Your task to perform on an android device: Open the Play Movies app and select the watchlist tab. Image 0: 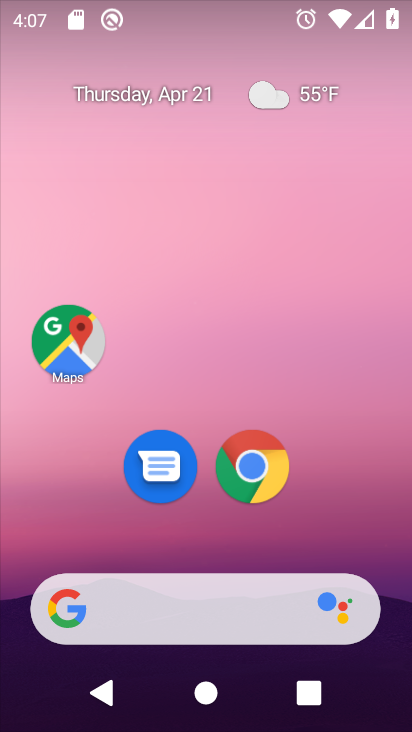
Step 0: drag from (190, 468) to (234, 69)
Your task to perform on an android device: Open the Play Movies app and select the watchlist tab. Image 1: 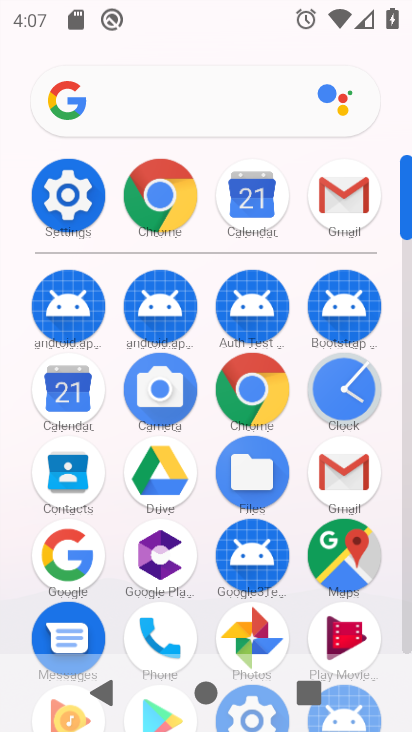
Step 1: drag from (282, 586) to (288, 209)
Your task to perform on an android device: Open the Play Movies app and select the watchlist tab. Image 2: 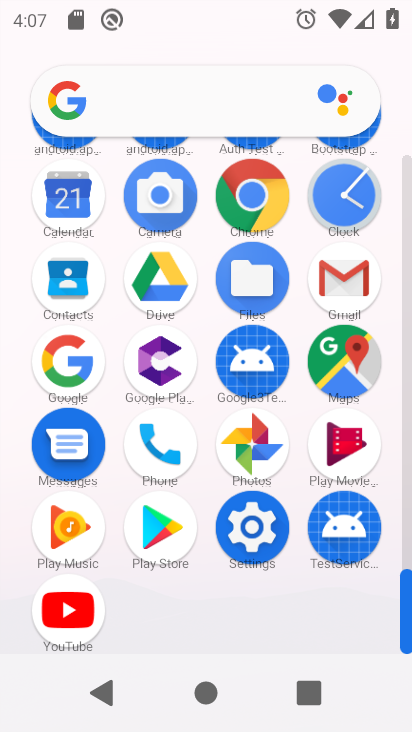
Step 2: click (337, 439)
Your task to perform on an android device: Open the Play Movies app and select the watchlist tab. Image 3: 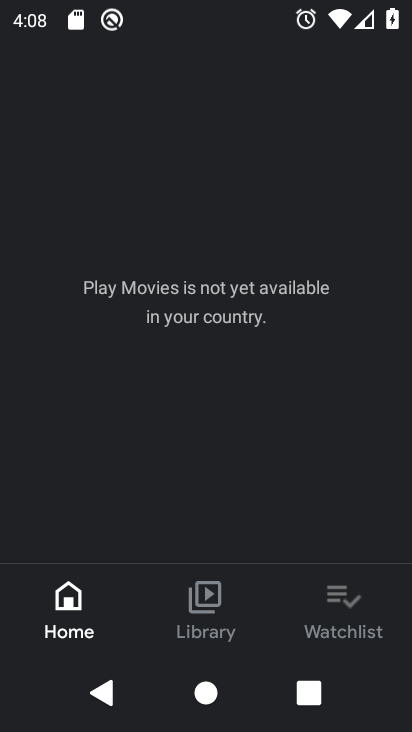
Step 3: click (332, 603)
Your task to perform on an android device: Open the Play Movies app and select the watchlist tab. Image 4: 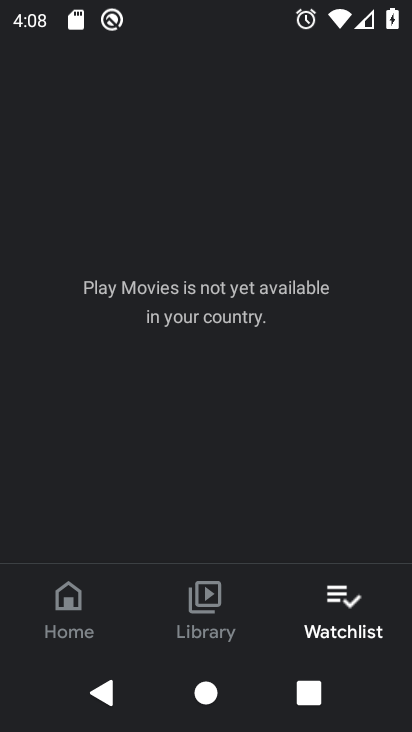
Step 4: task complete